Your task to perform on an android device: When is my next appointment? Image 0: 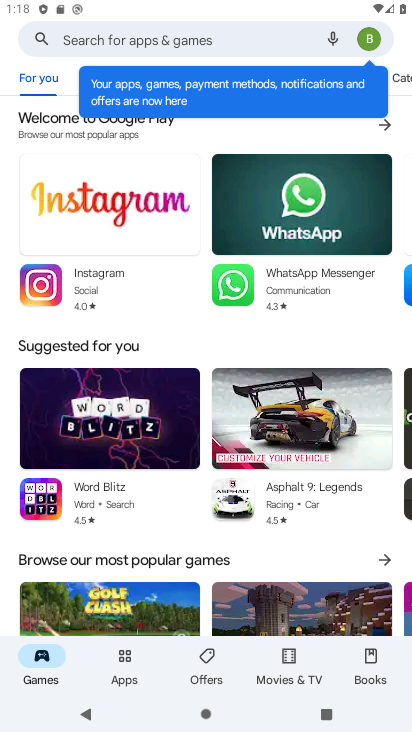
Step 0: press home button
Your task to perform on an android device: When is my next appointment? Image 1: 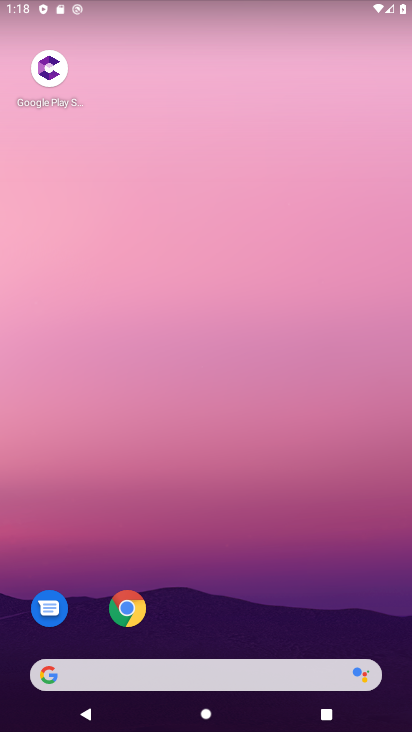
Step 1: drag from (75, 445) to (334, 531)
Your task to perform on an android device: When is my next appointment? Image 2: 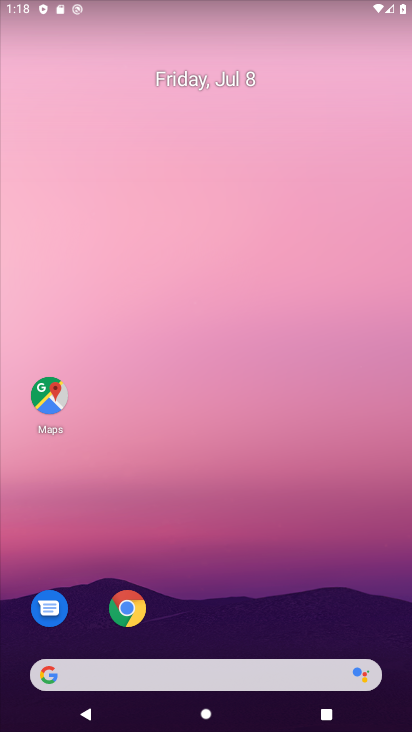
Step 2: click (209, 79)
Your task to perform on an android device: When is my next appointment? Image 3: 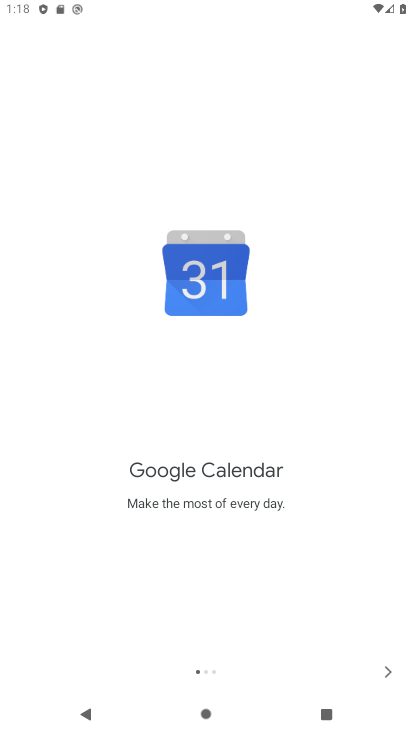
Step 3: click (384, 670)
Your task to perform on an android device: When is my next appointment? Image 4: 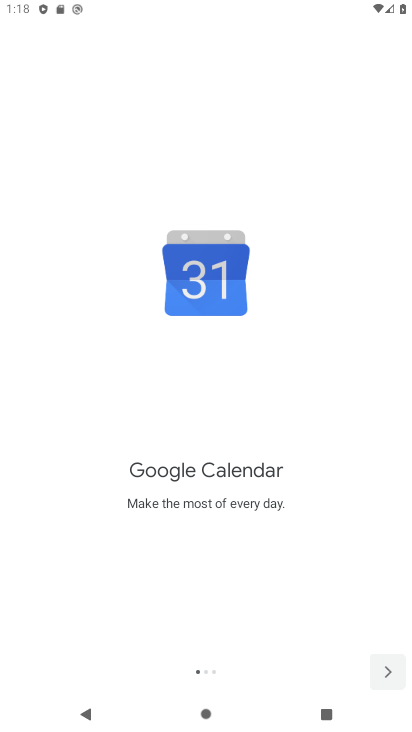
Step 4: click (384, 670)
Your task to perform on an android device: When is my next appointment? Image 5: 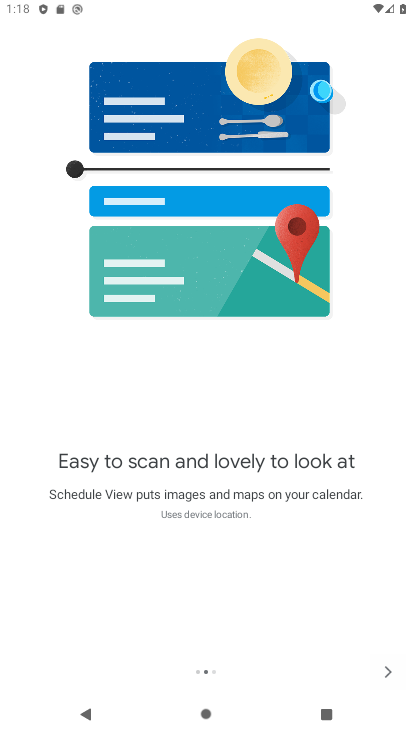
Step 5: click (384, 670)
Your task to perform on an android device: When is my next appointment? Image 6: 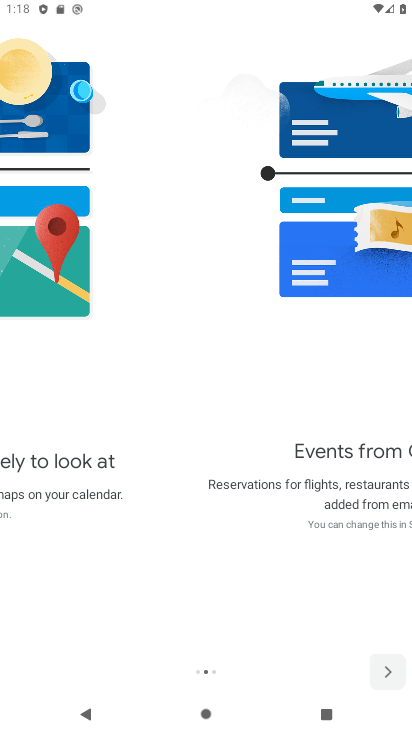
Step 6: click (384, 670)
Your task to perform on an android device: When is my next appointment? Image 7: 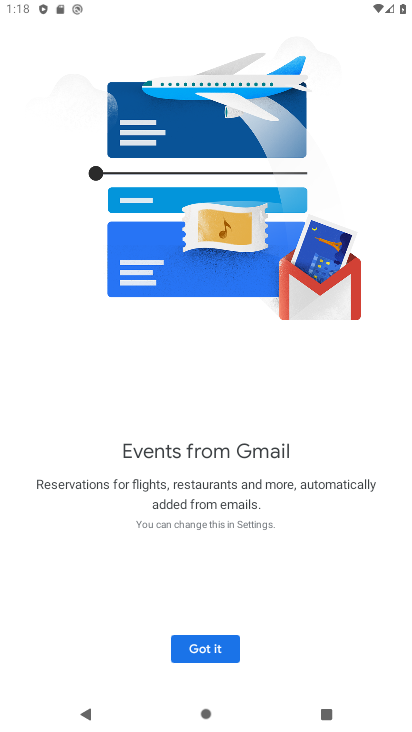
Step 7: click (188, 633)
Your task to perform on an android device: When is my next appointment? Image 8: 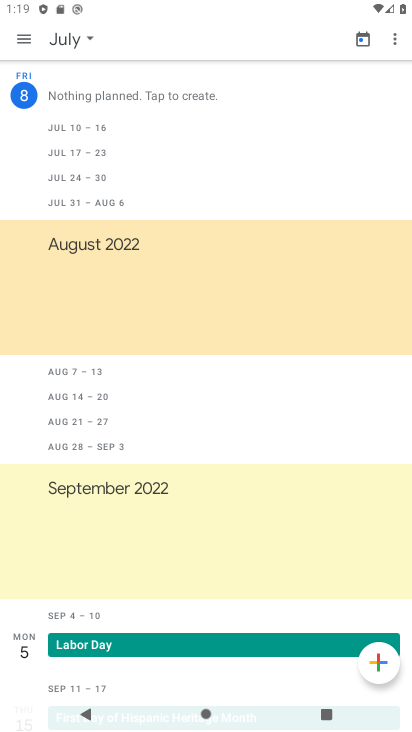
Step 8: task complete